Your task to perform on an android device: Add "jbl charge 4" to the cart on newegg Image 0: 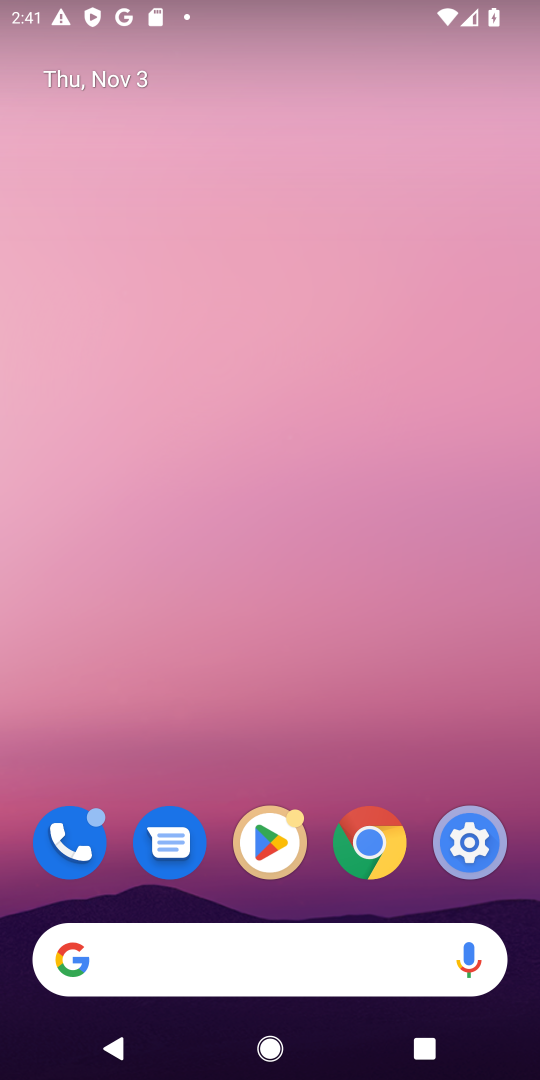
Step 0: press home button
Your task to perform on an android device: Add "jbl charge 4" to the cart on newegg Image 1: 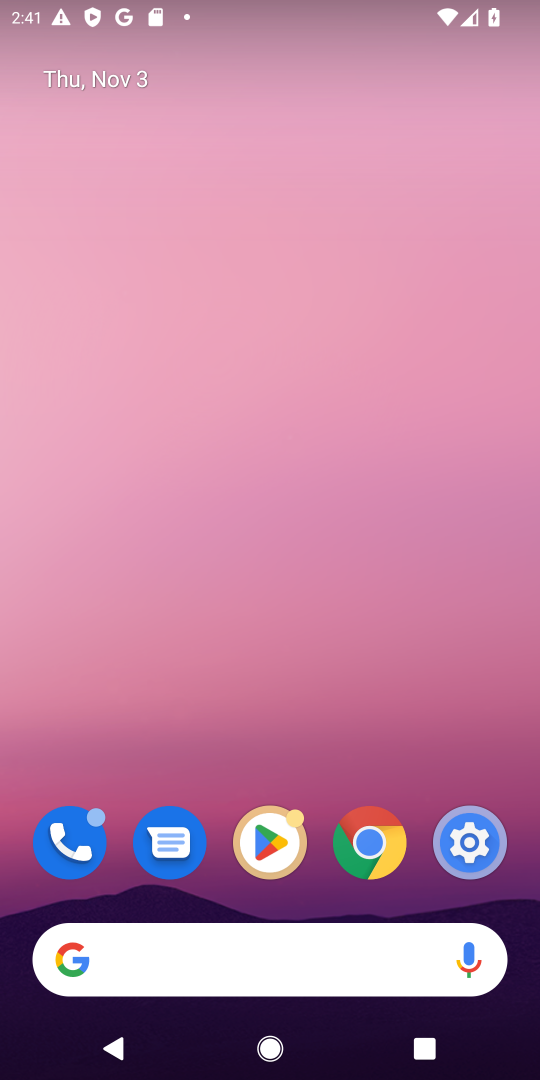
Step 1: click (109, 953)
Your task to perform on an android device: Add "jbl charge 4" to the cart on newegg Image 2: 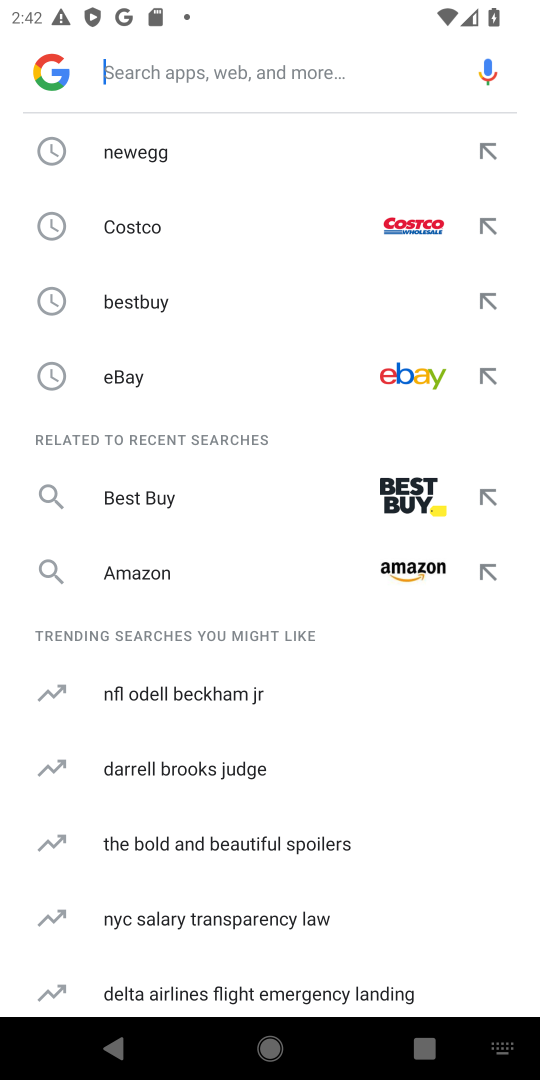
Step 2: press enter
Your task to perform on an android device: Add "jbl charge 4" to the cart on newegg Image 3: 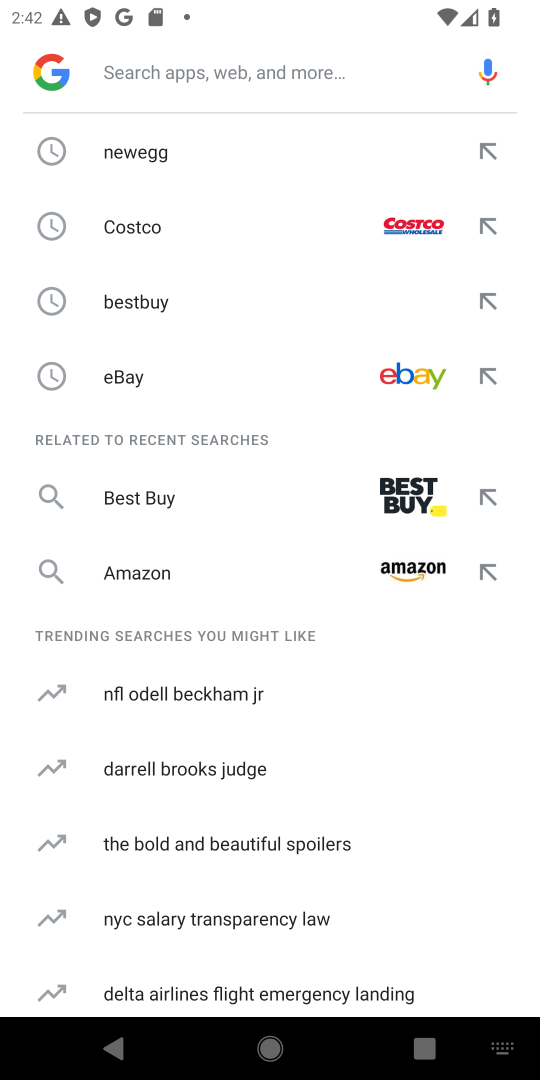
Step 3: type "newegg"
Your task to perform on an android device: Add "jbl charge 4" to the cart on newegg Image 4: 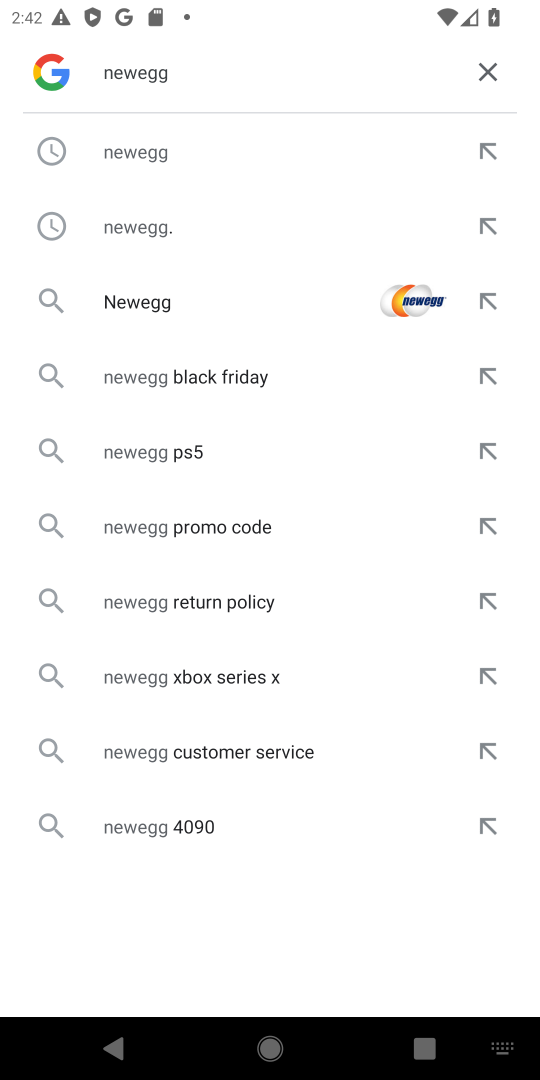
Step 4: press enter
Your task to perform on an android device: Add "jbl charge 4" to the cart on newegg Image 5: 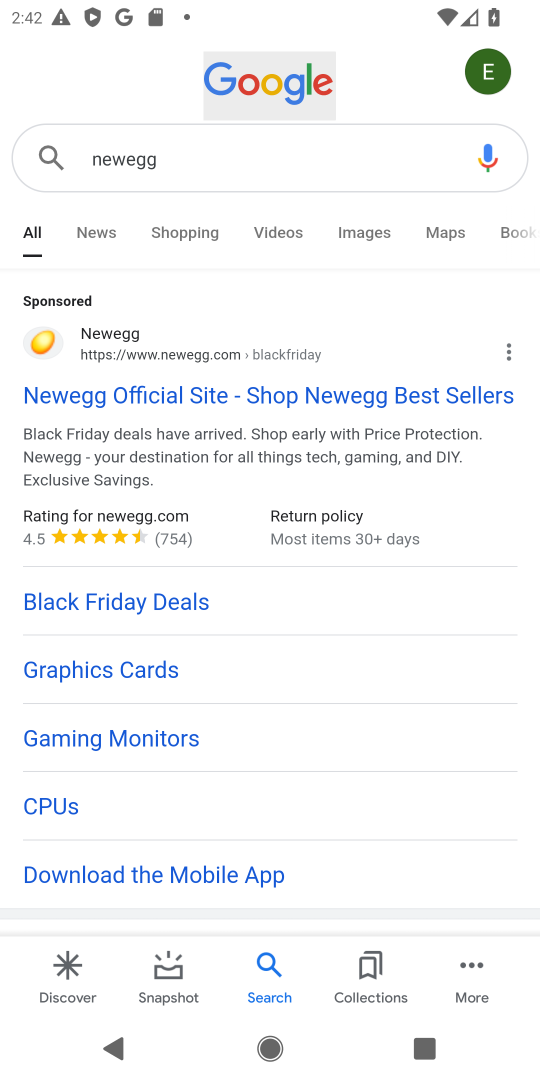
Step 5: click (295, 400)
Your task to perform on an android device: Add "jbl charge 4" to the cart on newegg Image 6: 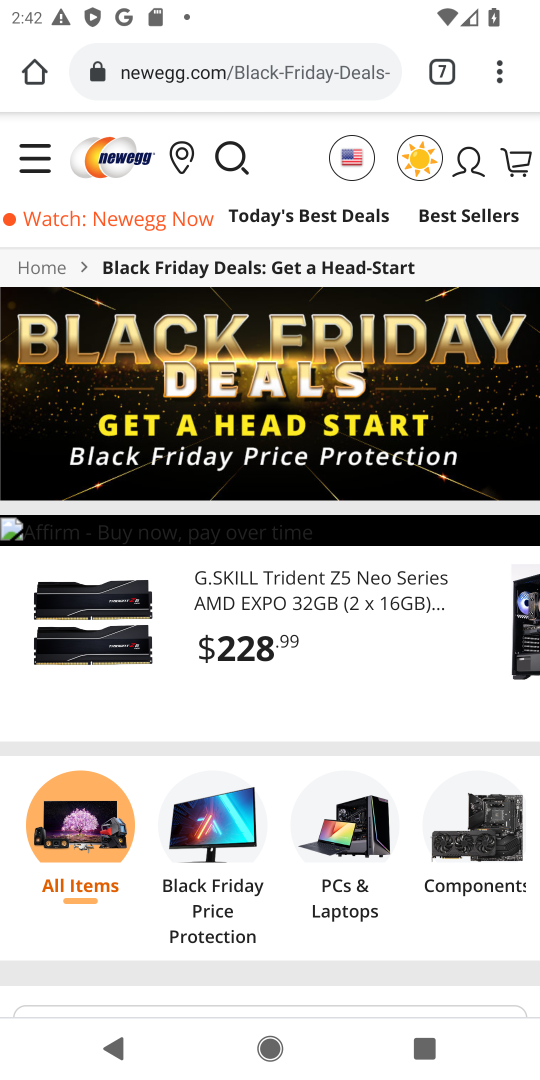
Step 6: click (219, 140)
Your task to perform on an android device: Add "jbl charge 4" to the cart on newegg Image 7: 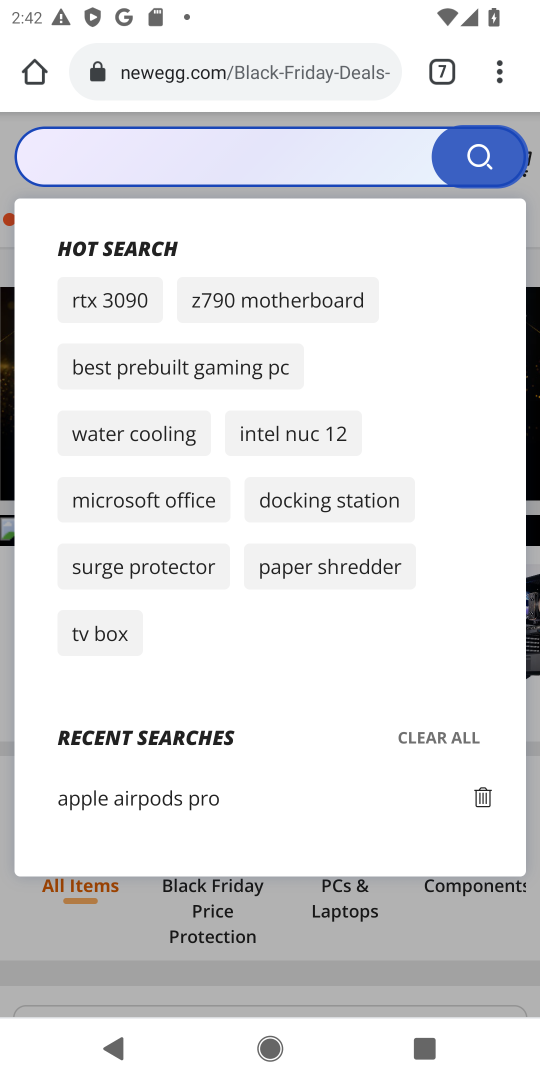
Step 7: click (169, 160)
Your task to perform on an android device: Add "jbl charge 4" to the cart on newegg Image 8: 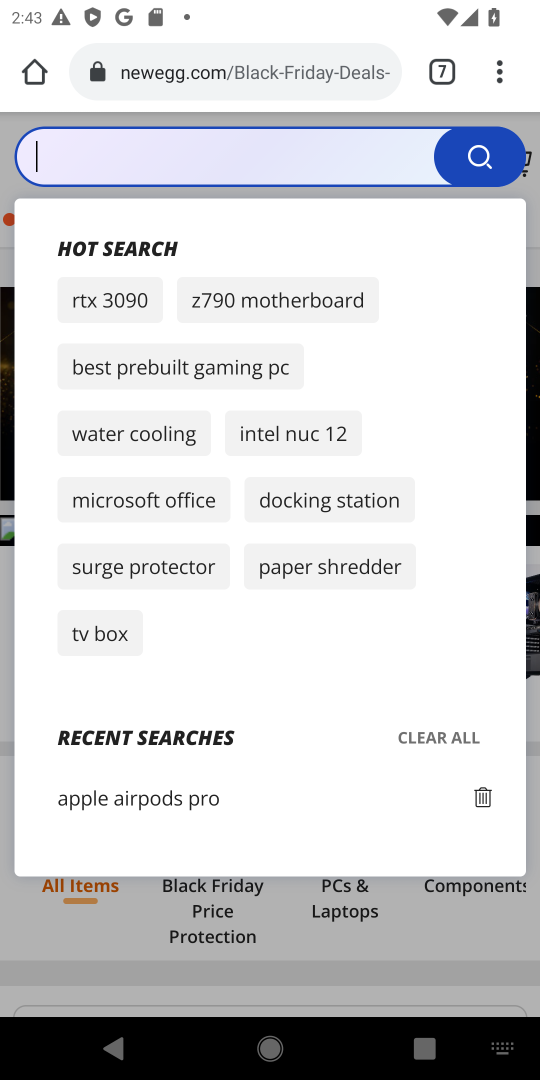
Step 8: press enter
Your task to perform on an android device: Add "jbl charge 4" to the cart on newegg Image 9: 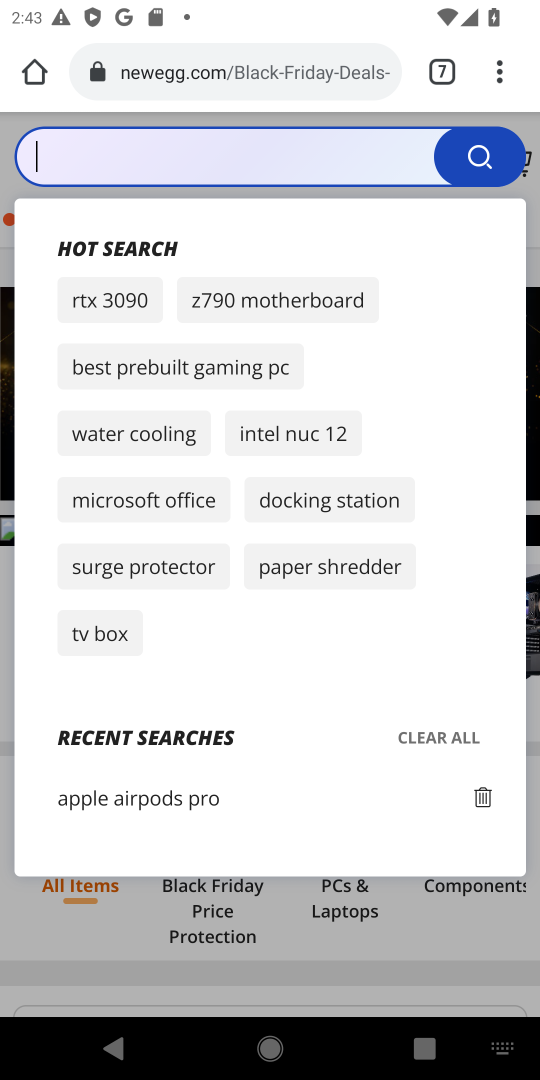
Step 9: type "jbl charge 4"
Your task to perform on an android device: Add "jbl charge 4" to the cart on newegg Image 10: 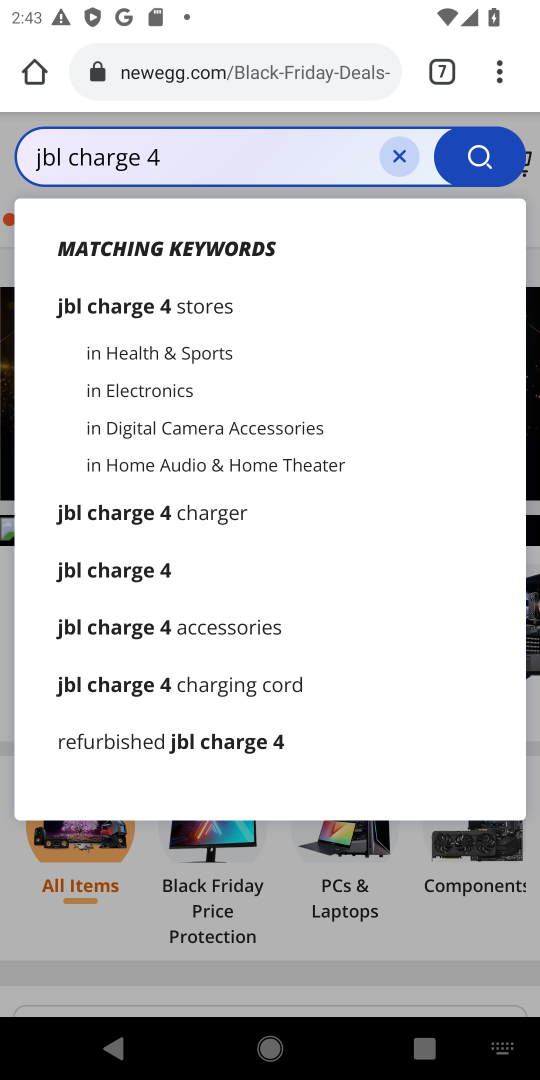
Step 10: click (472, 162)
Your task to perform on an android device: Add "jbl charge 4" to the cart on newegg Image 11: 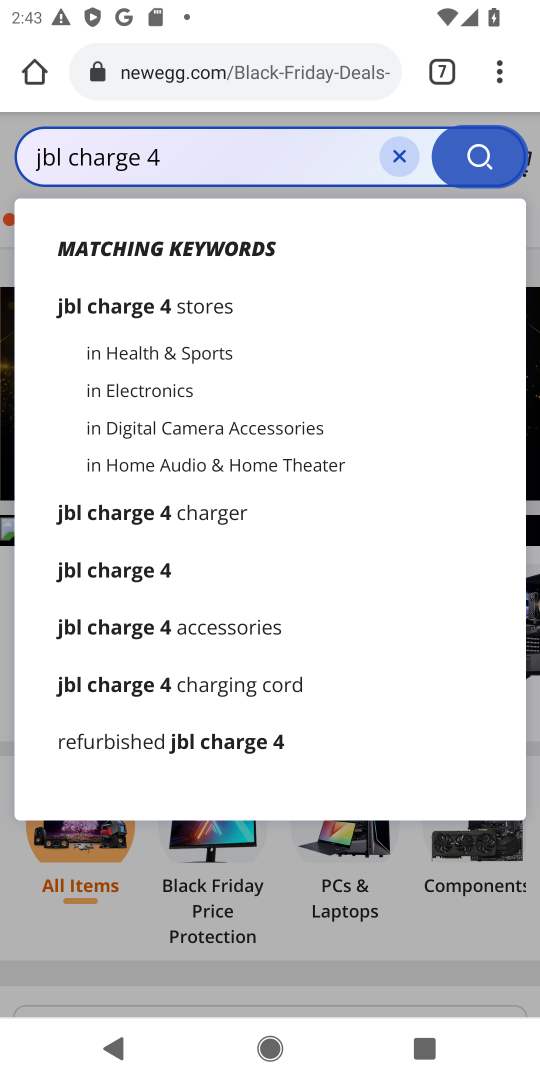
Step 11: click (480, 155)
Your task to perform on an android device: Add "jbl charge 4" to the cart on newegg Image 12: 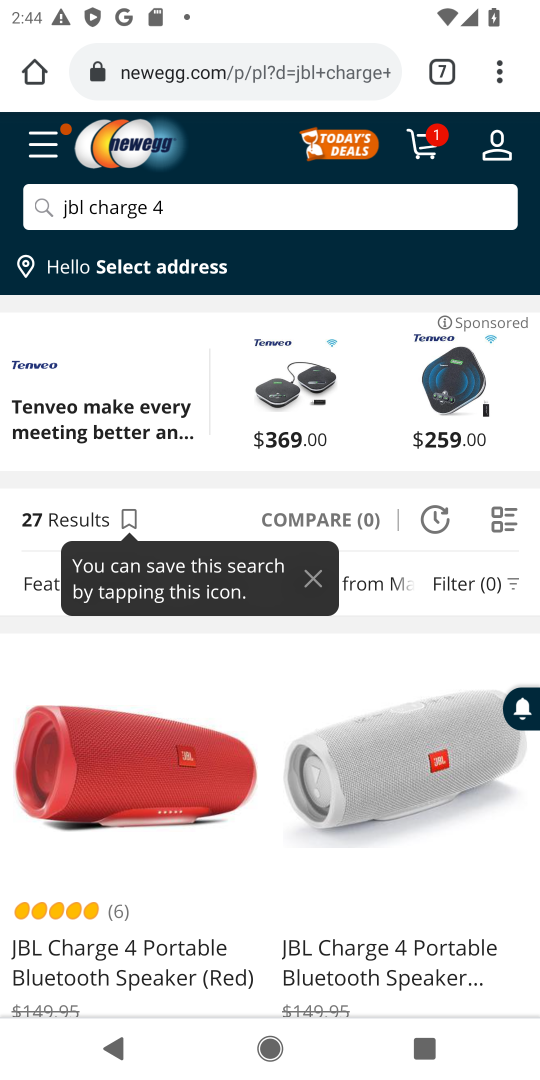
Step 12: click (122, 955)
Your task to perform on an android device: Add "jbl charge 4" to the cart on newegg Image 13: 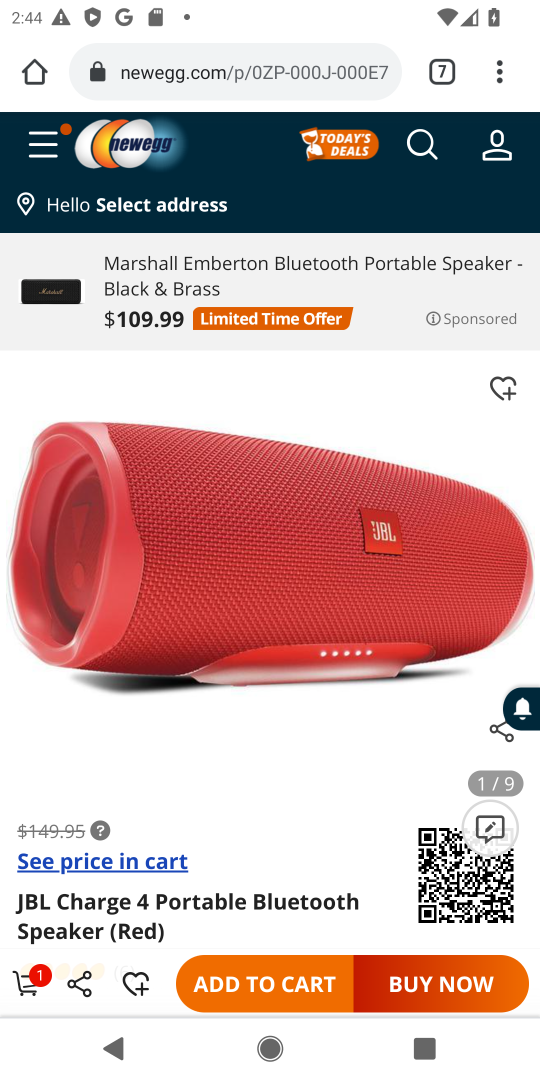
Step 13: click (278, 985)
Your task to perform on an android device: Add "jbl charge 4" to the cart on newegg Image 14: 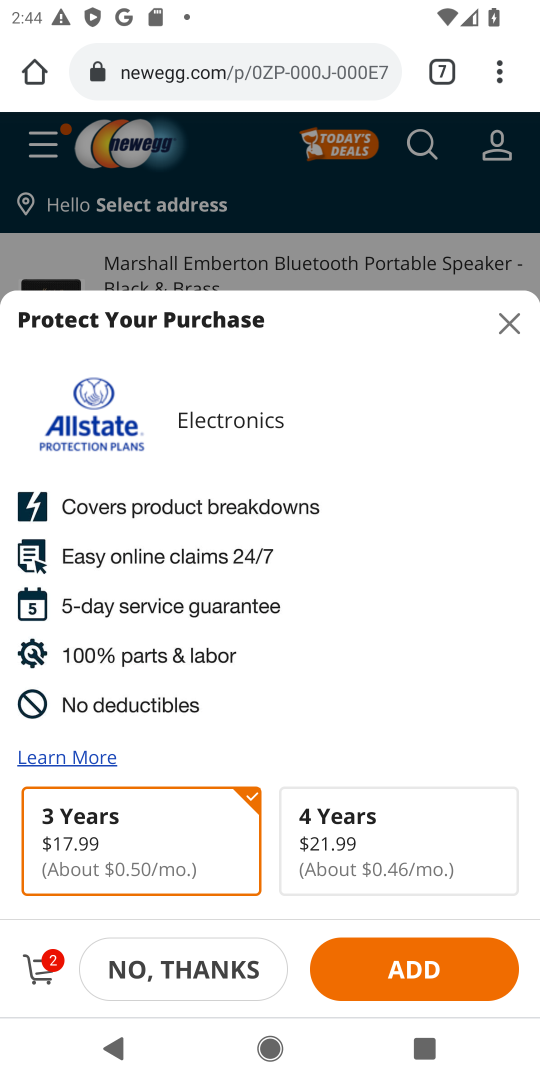
Step 14: click (188, 982)
Your task to perform on an android device: Add "jbl charge 4" to the cart on newegg Image 15: 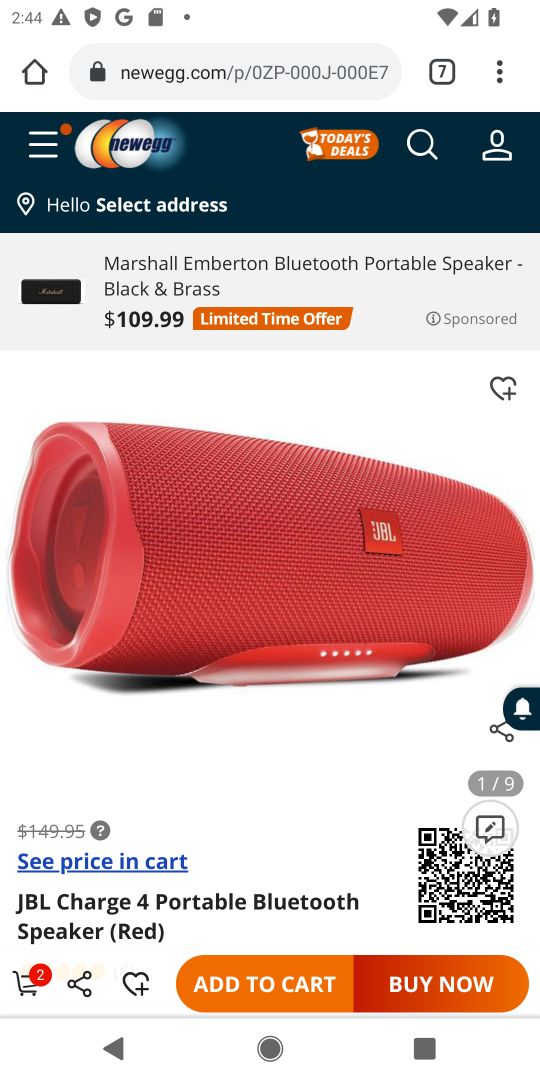
Step 15: task complete